Your task to perform on an android device: find snoozed emails in the gmail app Image 0: 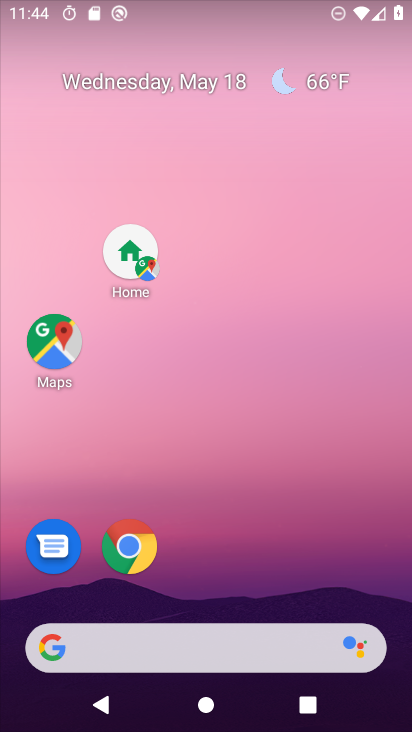
Step 0: drag from (190, 614) to (263, 39)
Your task to perform on an android device: find snoozed emails in the gmail app Image 1: 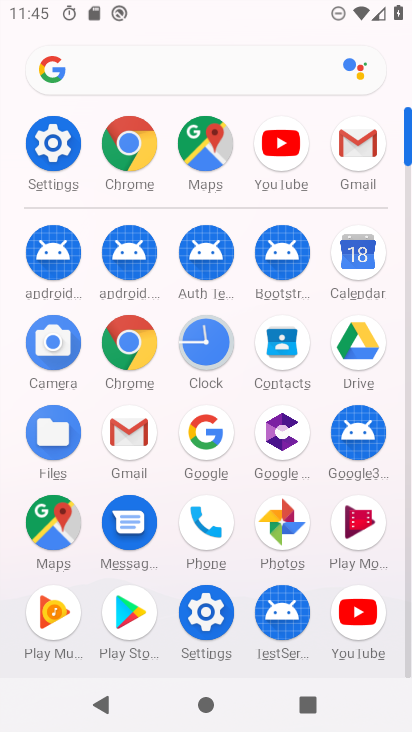
Step 1: click (338, 140)
Your task to perform on an android device: find snoozed emails in the gmail app Image 2: 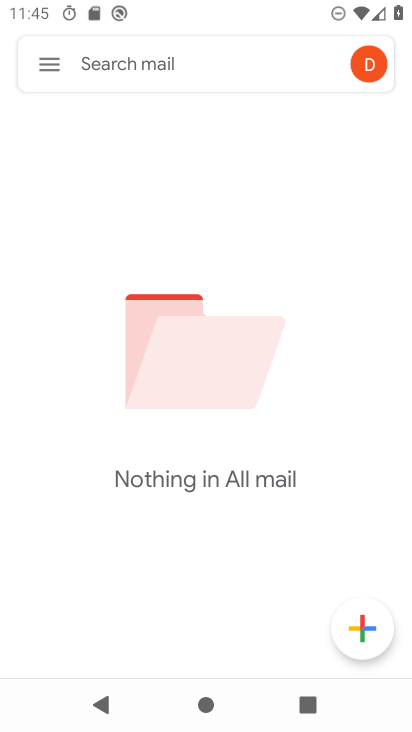
Step 2: click (40, 78)
Your task to perform on an android device: find snoozed emails in the gmail app Image 3: 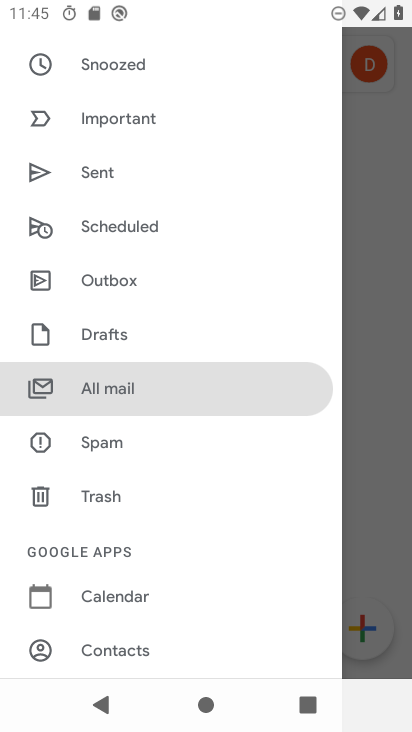
Step 3: click (108, 76)
Your task to perform on an android device: find snoozed emails in the gmail app Image 4: 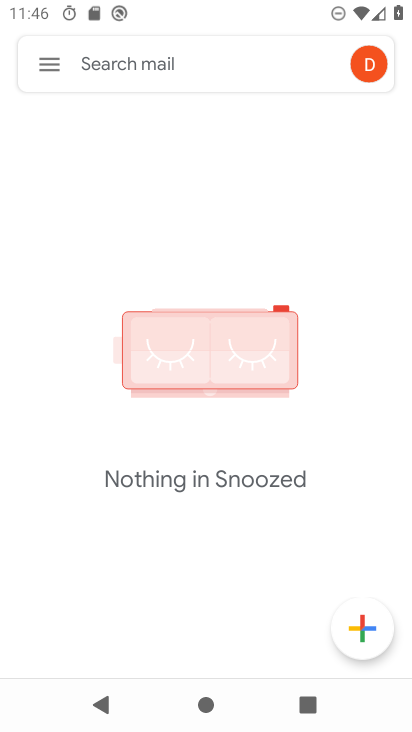
Step 4: task complete